Your task to perform on an android device: Open the calendar Image 0: 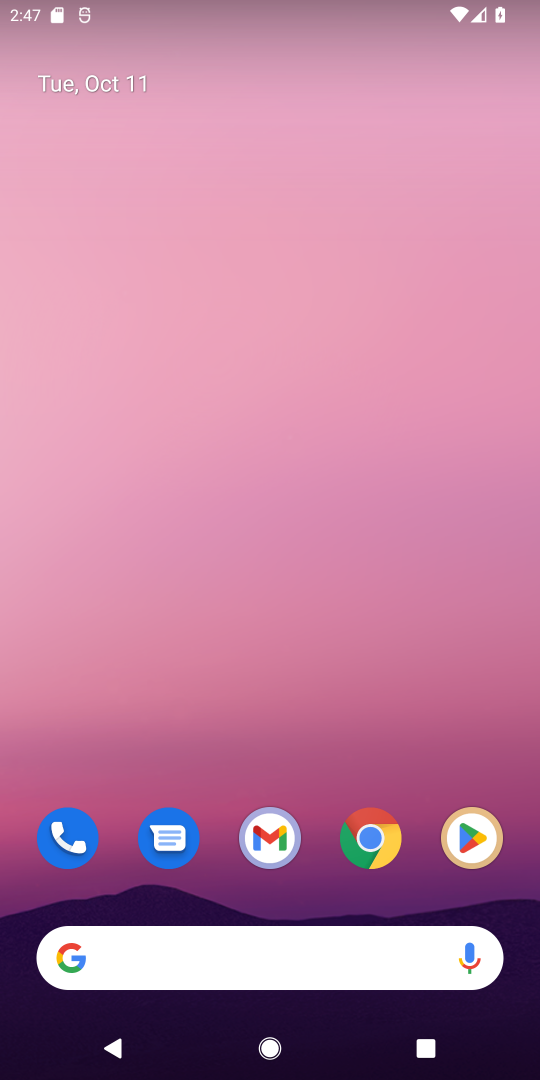
Step 0: press home button
Your task to perform on an android device: Open the calendar Image 1: 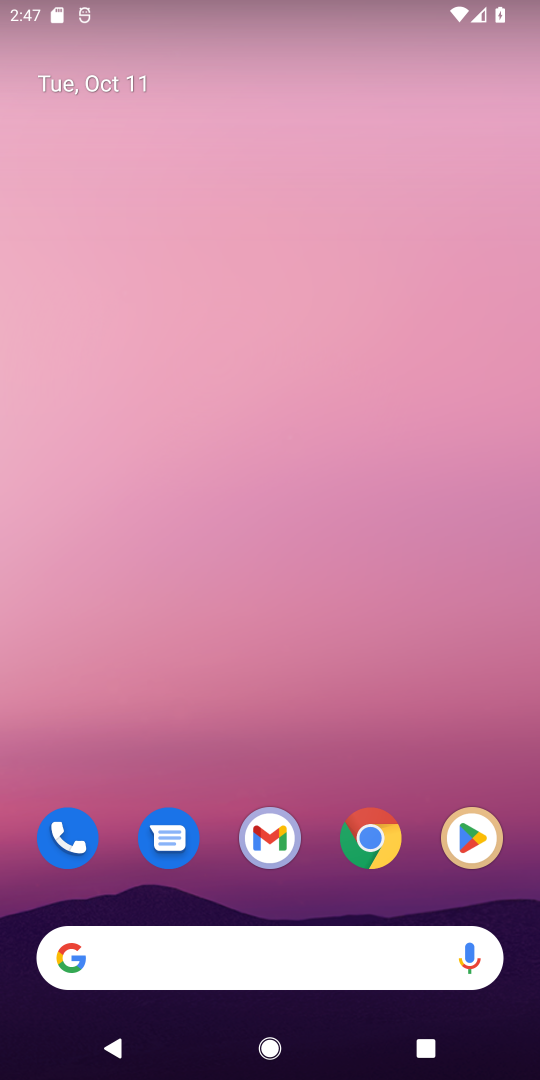
Step 1: drag from (254, 721) to (257, 301)
Your task to perform on an android device: Open the calendar Image 2: 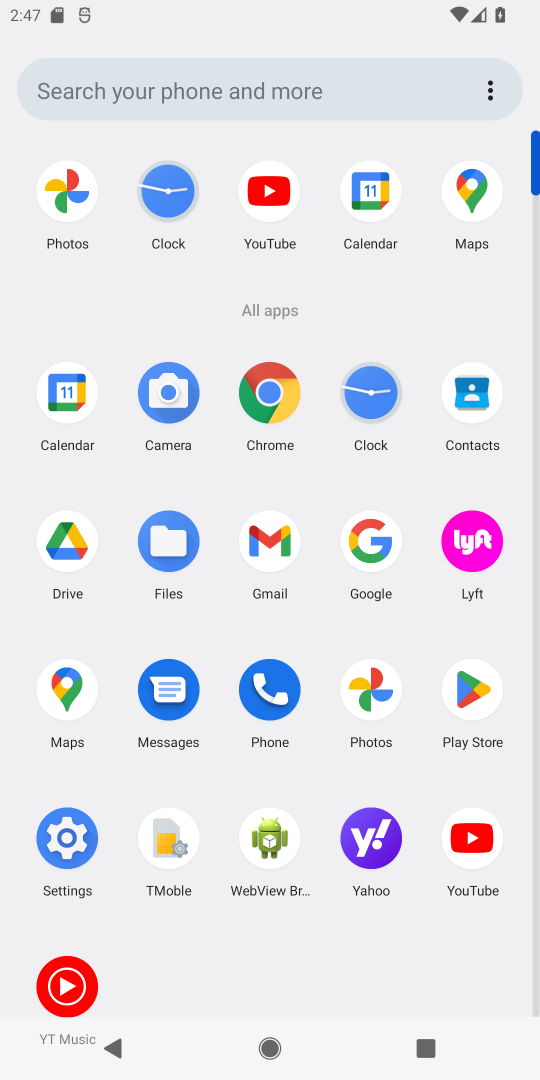
Step 2: click (55, 393)
Your task to perform on an android device: Open the calendar Image 3: 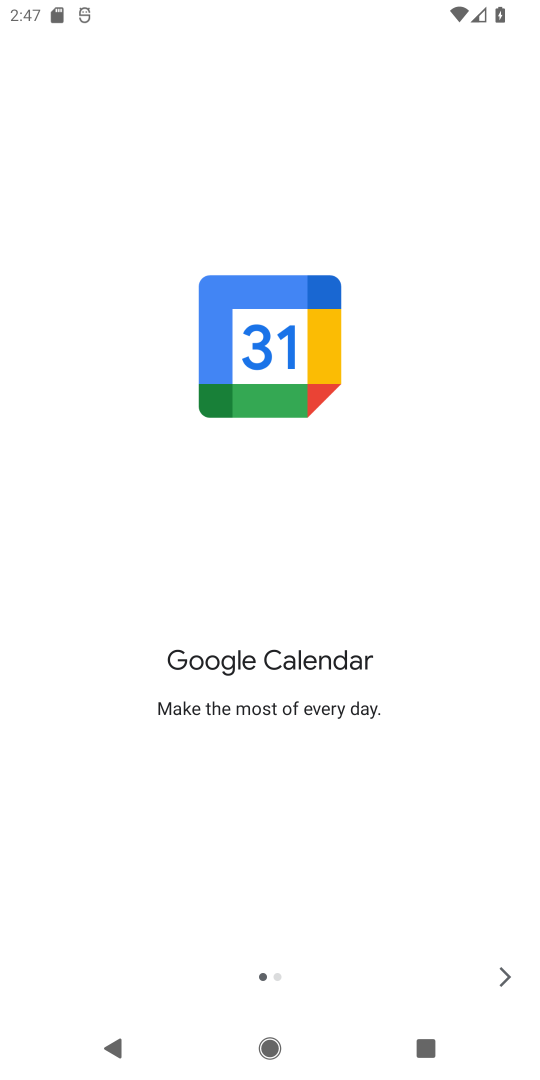
Step 3: click (275, 297)
Your task to perform on an android device: Open the calendar Image 4: 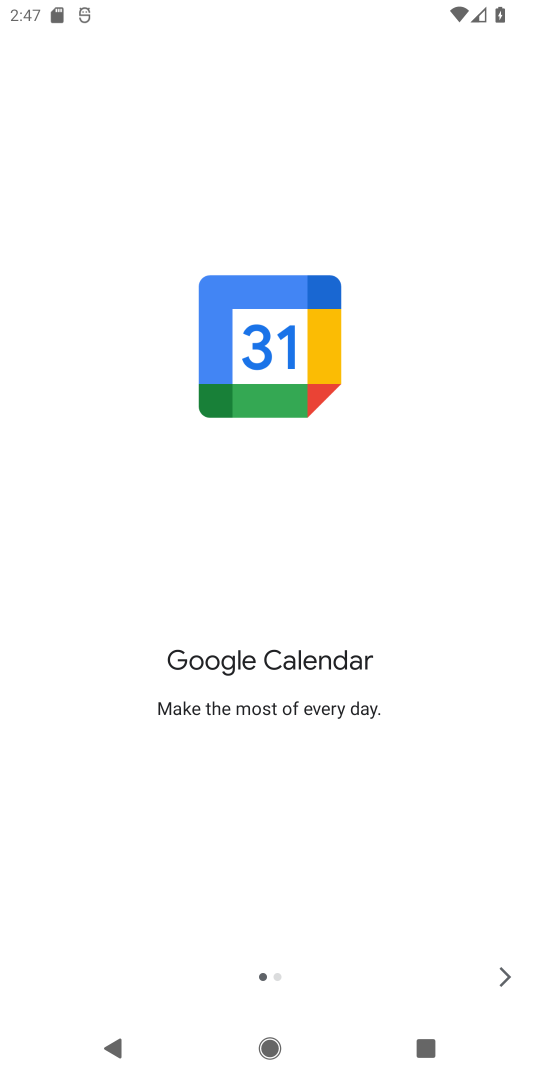
Step 4: click (226, 658)
Your task to perform on an android device: Open the calendar Image 5: 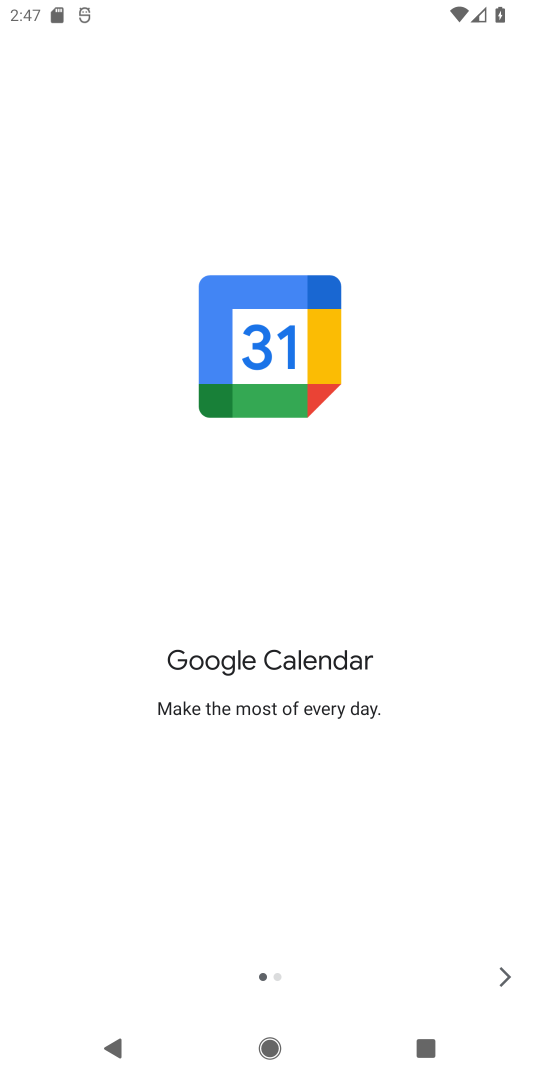
Step 5: click (263, 337)
Your task to perform on an android device: Open the calendar Image 6: 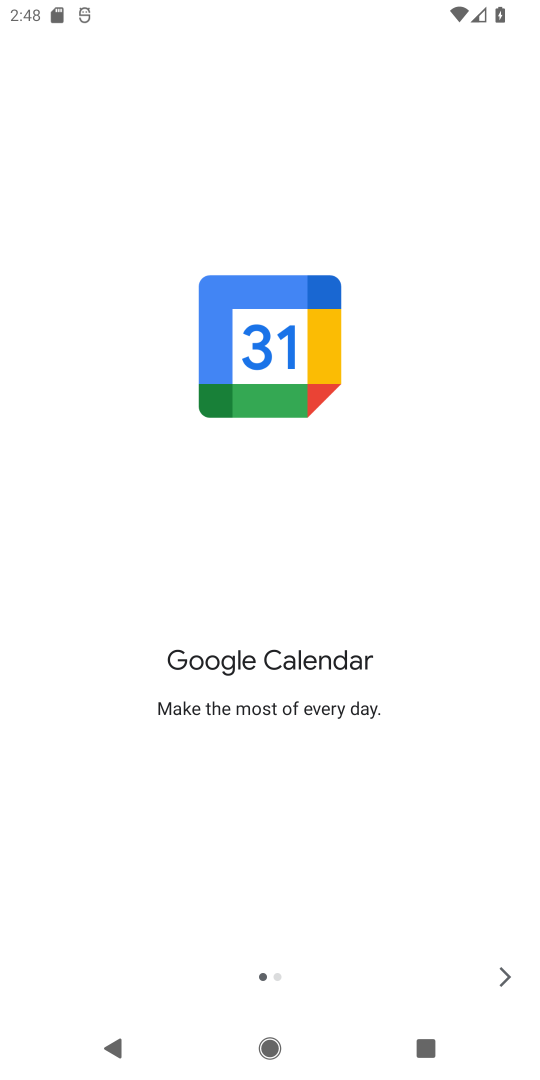
Step 6: click (501, 978)
Your task to perform on an android device: Open the calendar Image 7: 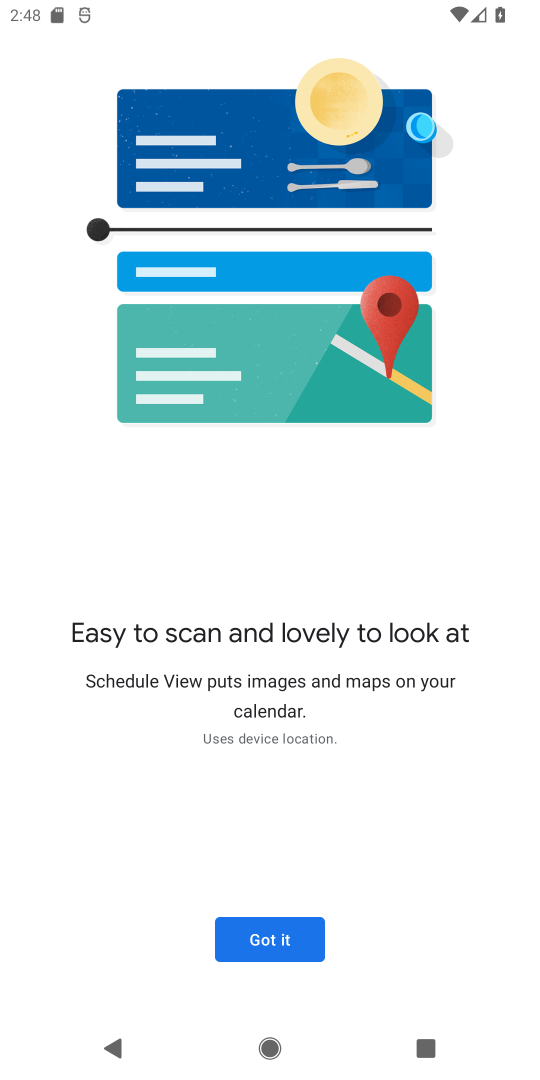
Step 7: drag from (115, 815) to (427, 767)
Your task to perform on an android device: Open the calendar Image 8: 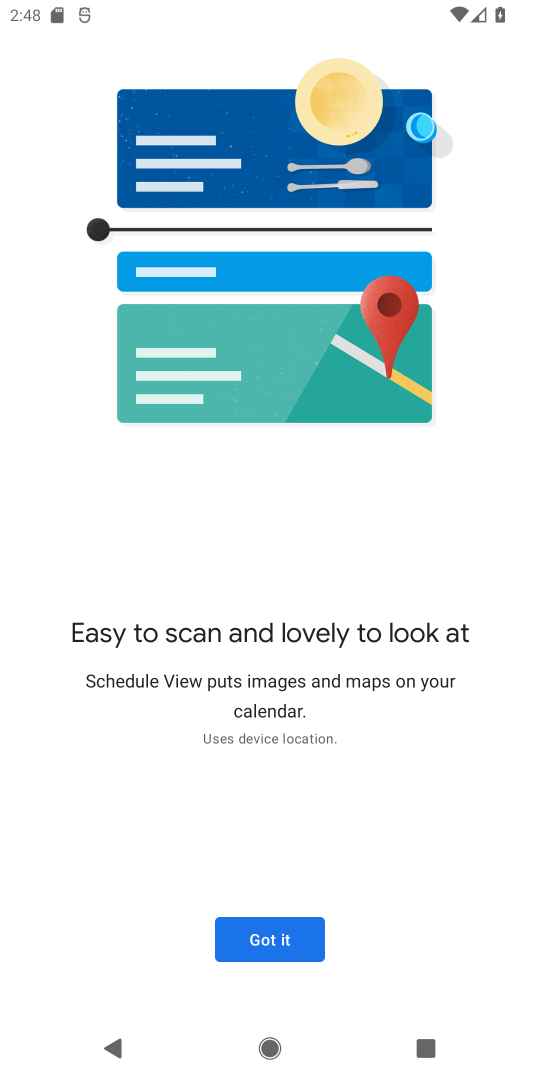
Step 8: drag from (104, 404) to (277, 407)
Your task to perform on an android device: Open the calendar Image 9: 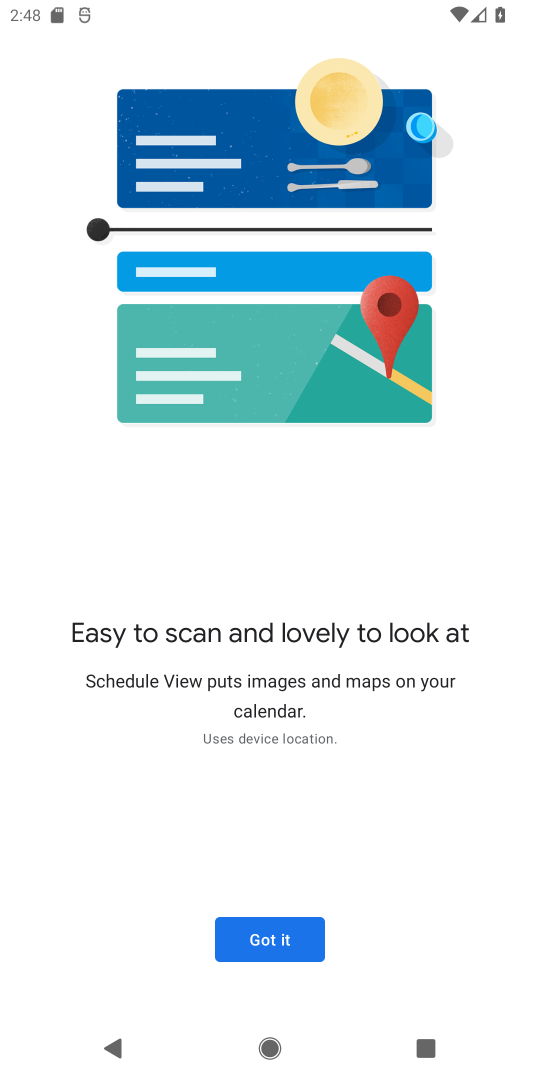
Step 9: drag from (366, 466) to (51, 459)
Your task to perform on an android device: Open the calendar Image 10: 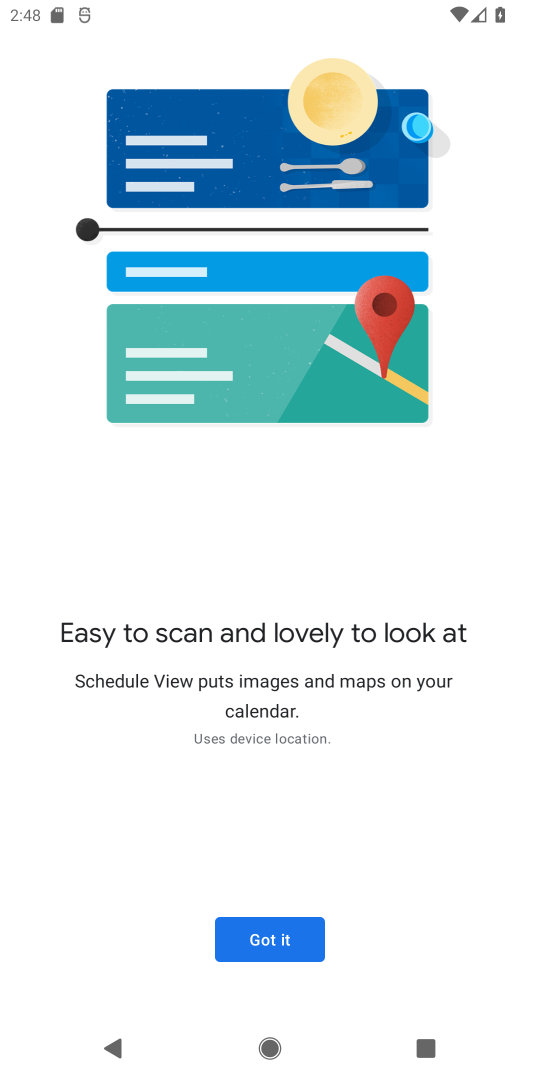
Step 10: drag from (124, 480) to (394, 466)
Your task to perform on an android device: Open the calendar Image 11: 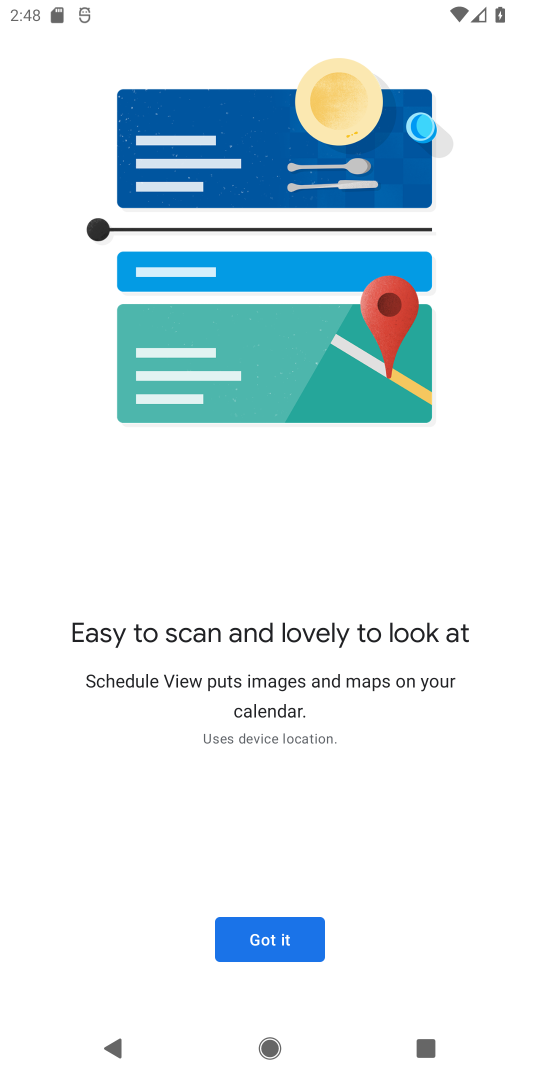
Step 11: press back button
Your task to perform on an android device: Open the calendar Image 12: 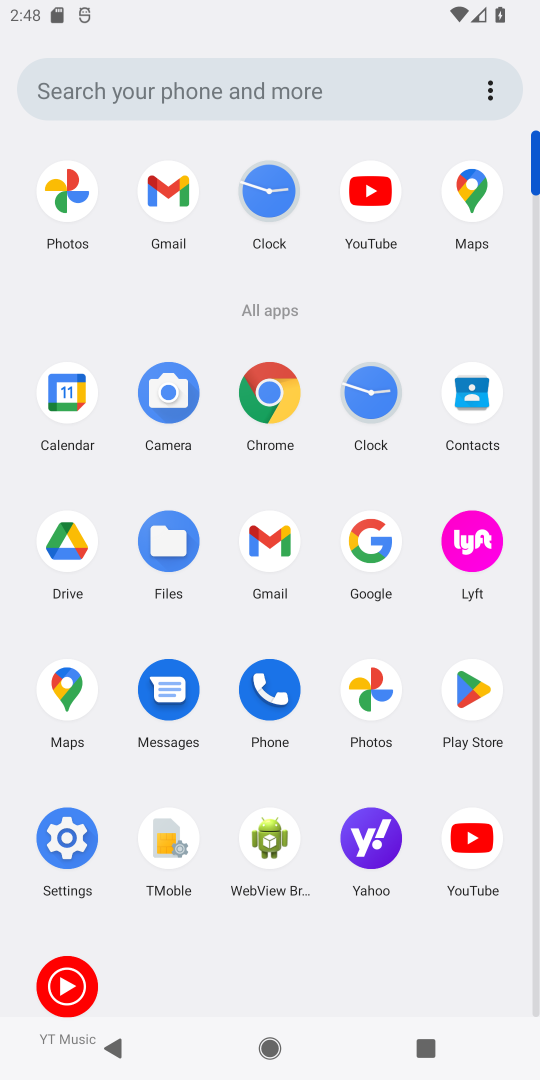
Step 12: click (64, 396)
Your task to perform on an android device: Open the calendar Image 13: 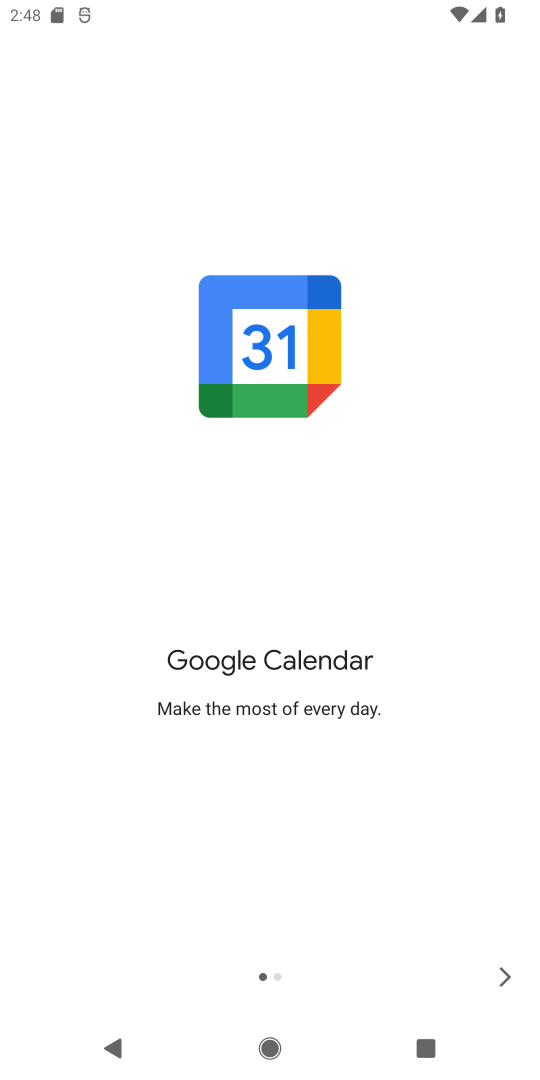
Step 13: drag from (318, 795) to (326, 422)
Your task to perform on an android device: Open the calendar Image 14: 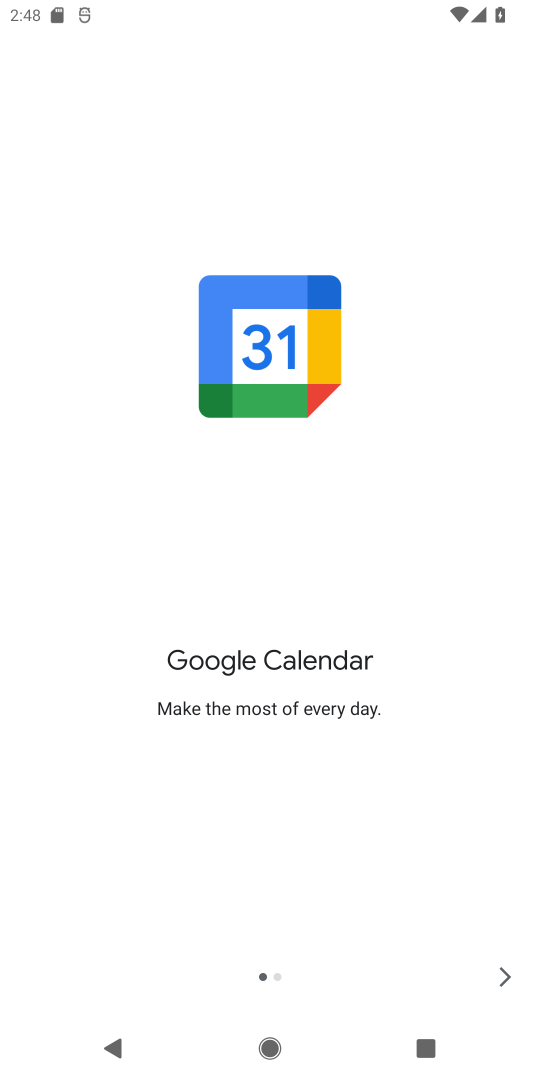
Step 14: click (275, 377)
Your task to perform on an android device: Open the calendar Image 15: 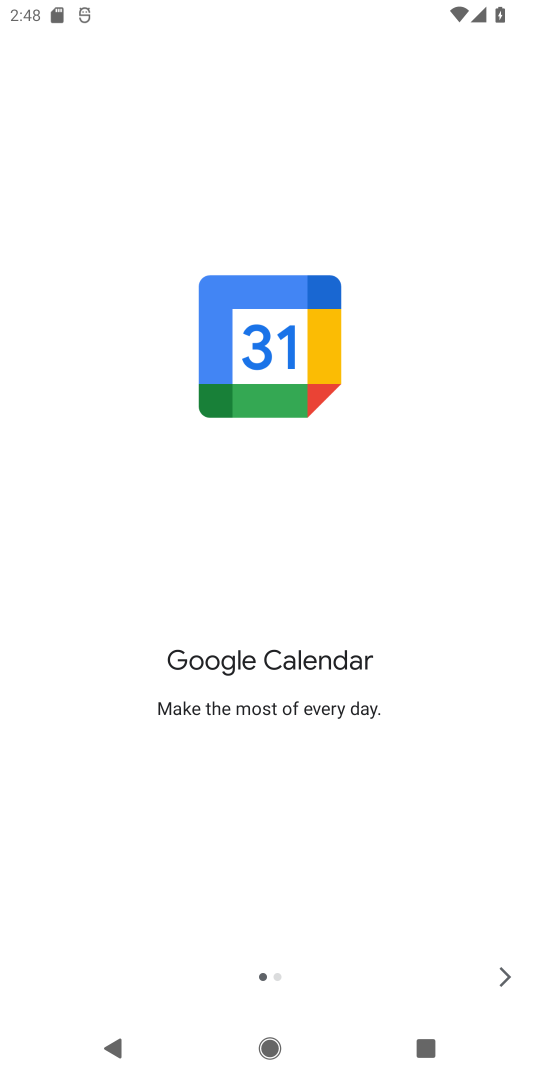
Step 15: drag from (135, 453) to (185, 244)
Your task to perform on an android device: Open the calendar Image 16: 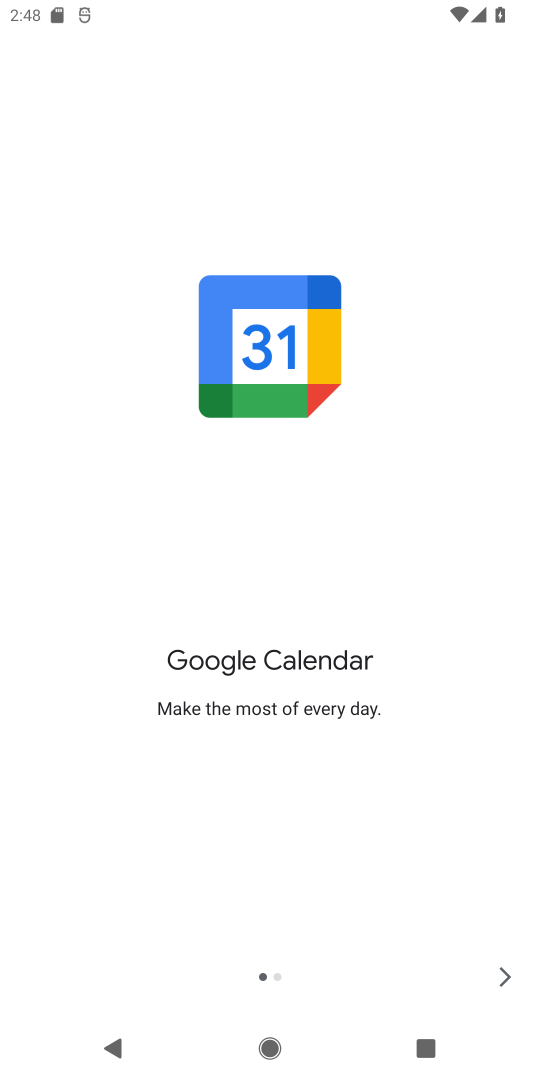
Step 16: drag from (200, 618) to (215, 515)
Your task to perform on an android device: Open the calendar Image 17: 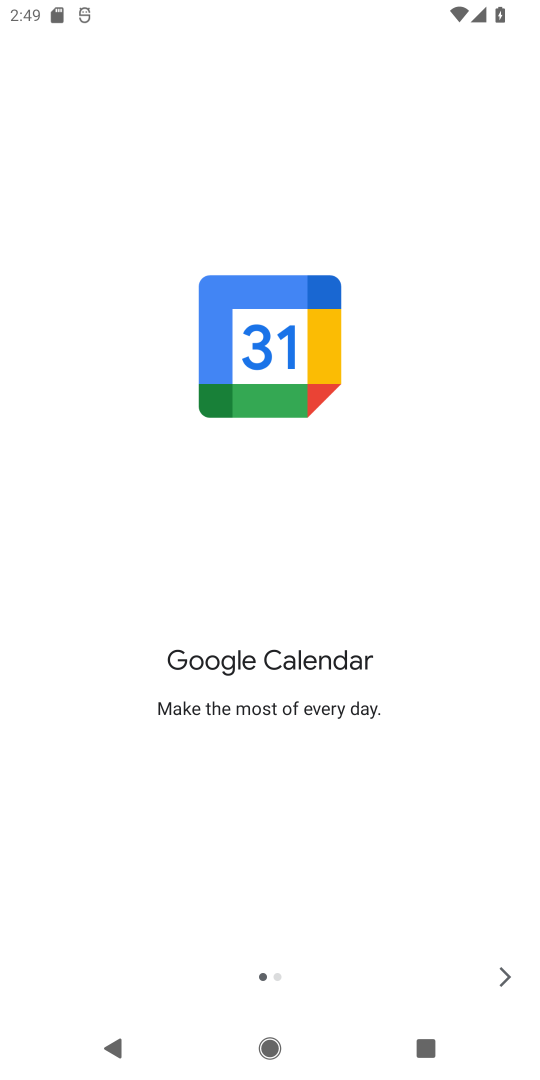
Step 17: click (268, 313)
Your task to perform on an android device: Open the calendar Image 18: 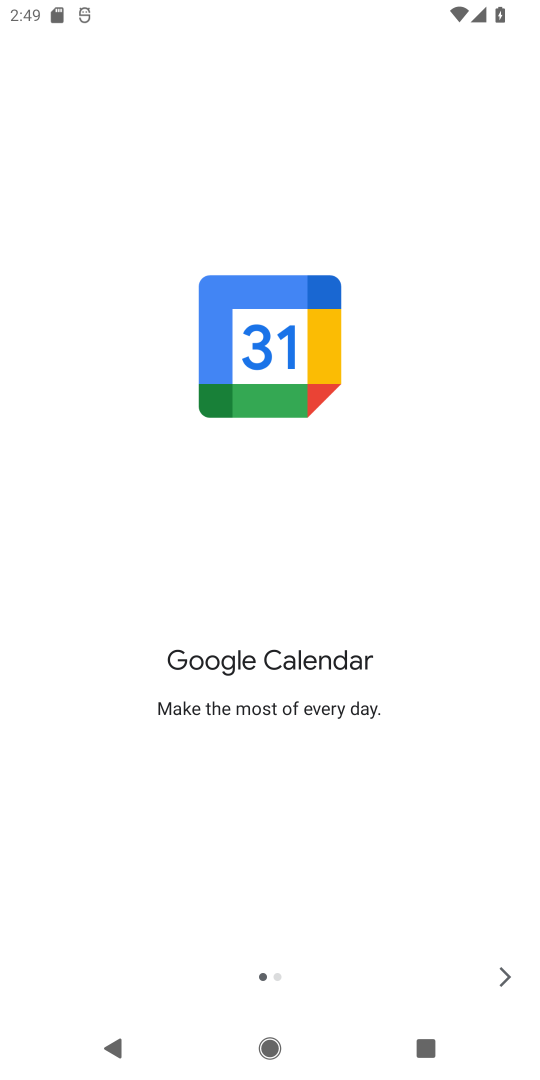
Step 18: task complete